Your task to perform on an android device: see creations saved in the google photos Image 0: 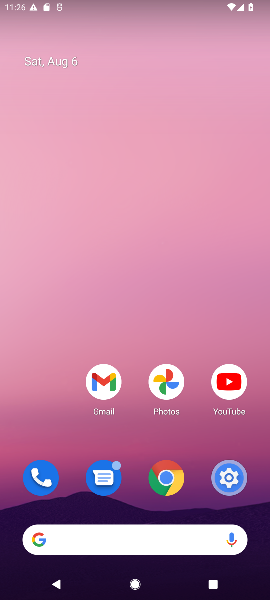
Step 0: drag from (103, 538) to (121, 258)
Your task to perform on an android device: see creations saved in the google photos Image 1: 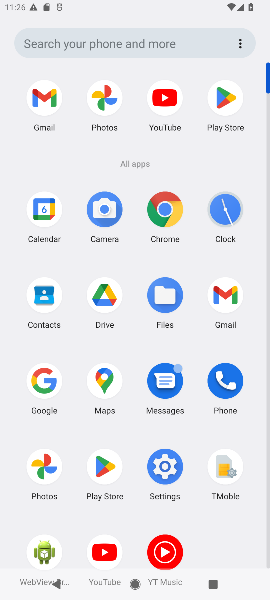
Step 1: click (43, 474)
Your task to perform on an android device: see creations saved in the google photos Image 2: 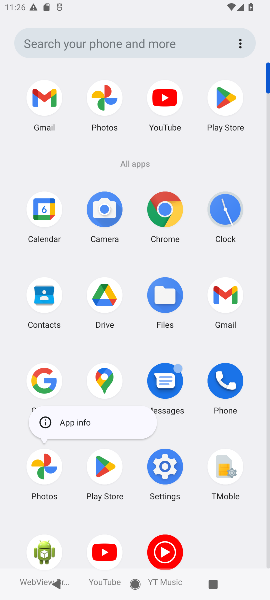
Step 2: click (43, 468)
Your task to perform on an android device: see creations saved in the google photos Image 3: 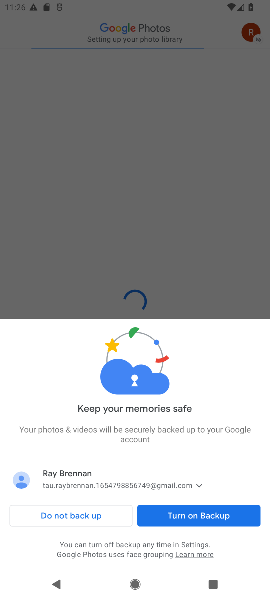
Step 3: click (168, 518)
Your task to perform on an android device: see creations saved in the google photos Image 4: 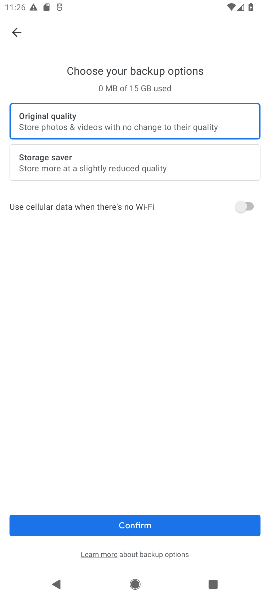
Step 4: click (137, 532)
Your task to perform on an android device: see creations saved in the google photos Image 5: 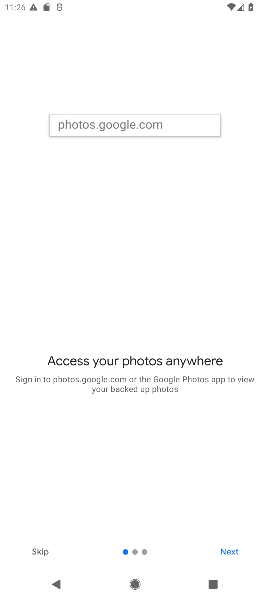
Step 5: click (222, 553)
Your task to perform on an android device: see creations saved in the google photos Image 6: 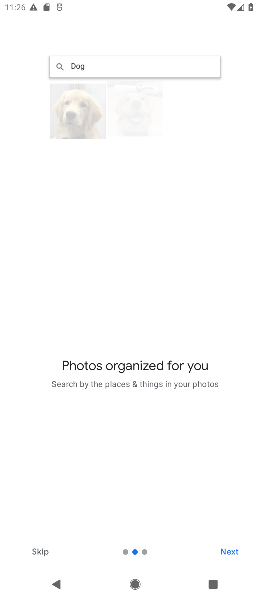
Step 6: click (222, 553)
Your task to perform on an android device: see creations saved in the google photos Image 7: 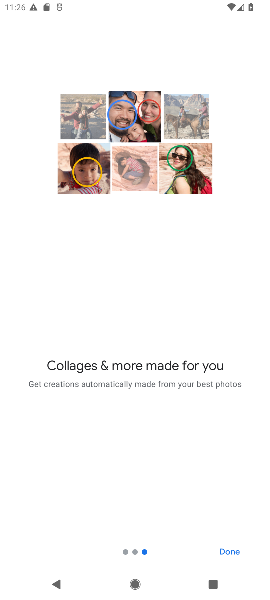
Step 7: click (222, 553)
Your task to perform on an android device: see creations saved in the google photos Image 8: 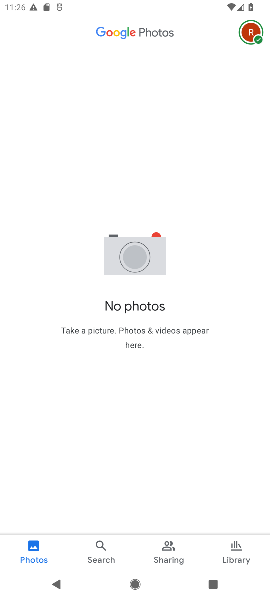
Step 8: click (232, 556)
Your task to perform on an android device: see creations saved in the google photos Image 9: 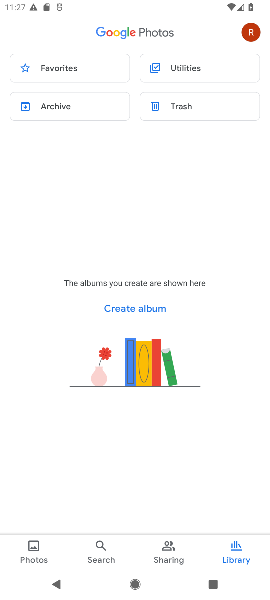
Step 9: click (49, 73)
Your task to perform on an android device: see creations saved in the google photos Image 10: 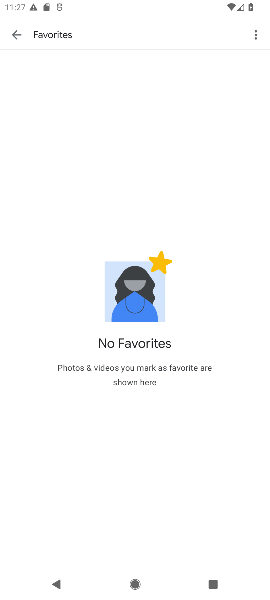
Step 10: task complete